Your task to perform on an android device: Open Google Chrome Image 0: 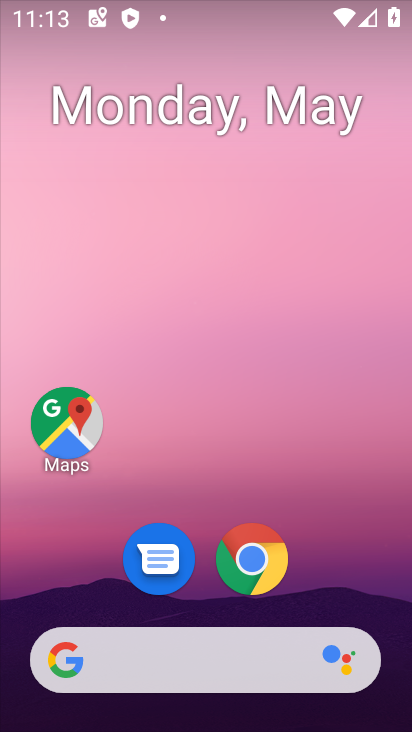
Step 0: click (266, 573)
Your task to perform on an android device: Open Google Chrome Image 1: 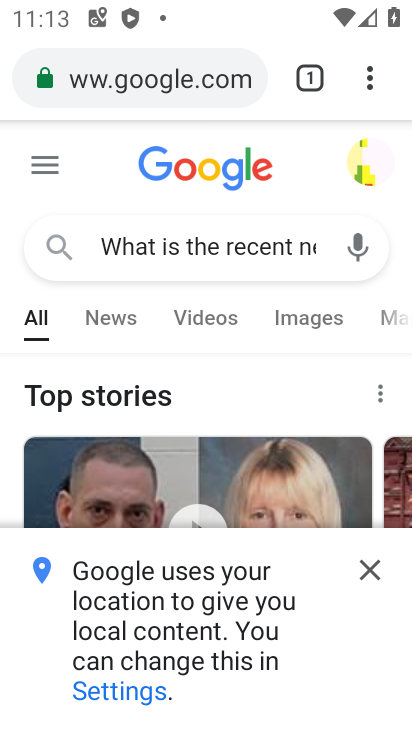
Step 1: task complete